Your task to perform on an android device: set the stopwatch Image 0: 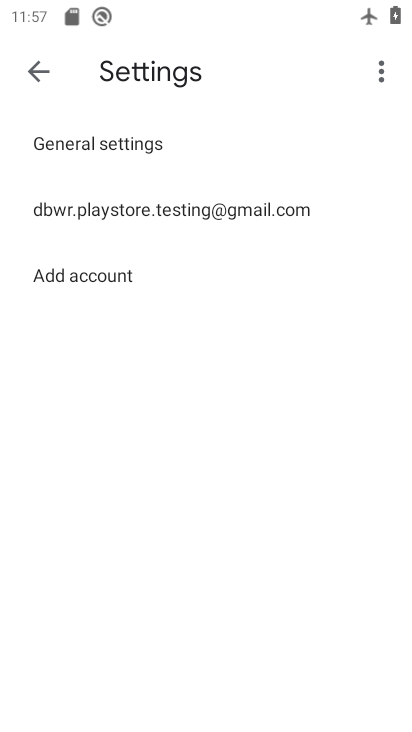
Step 0: press home button
Your task to perform on an android device: set the stopwatch Image 1: 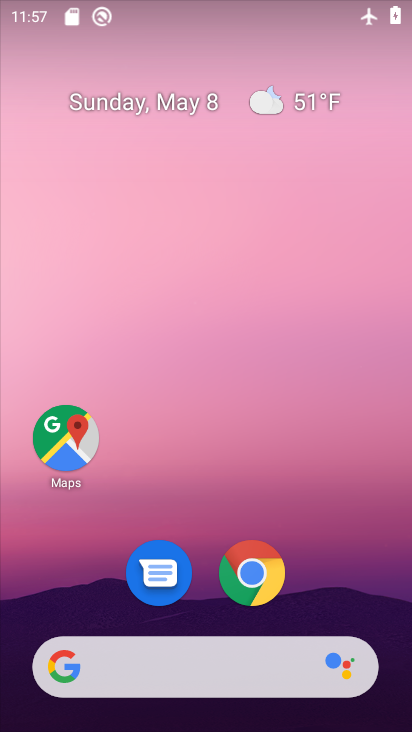
Step 1: drag from (206, 634) to (177, 252)
Your task to perform on an android device: set the stopwatch Image 2: 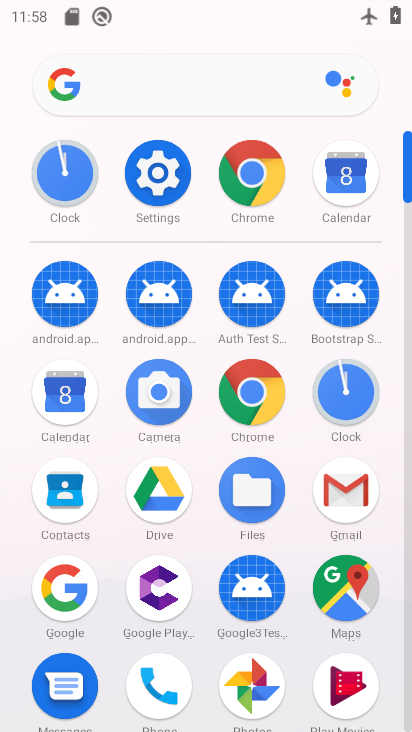
Step 2: click (355, 397)
Your task to perform on an android device: set the stopwatch Image 3: 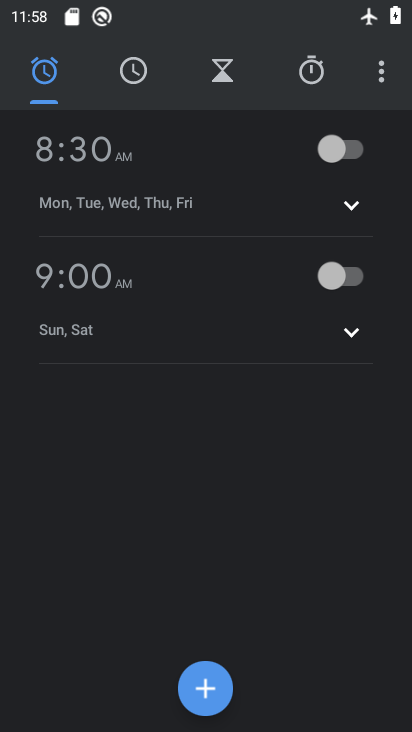
Step 3: click (312, 82)
Your task to perform on an android device: set the stopwatch Image 4: 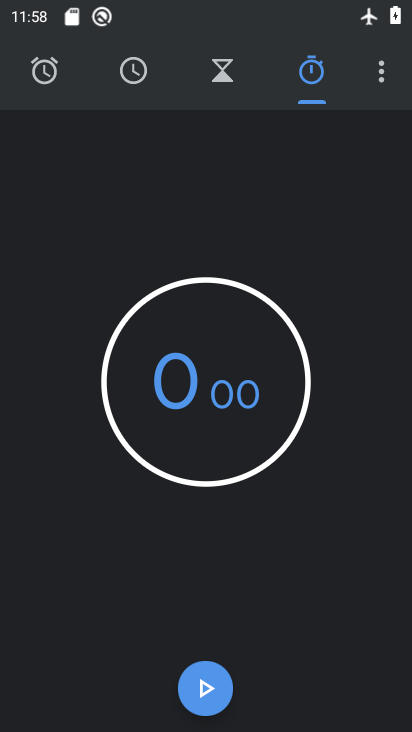
Step 4: click (187, 389)
Your task to perform on an android device: set the stopwatch Image 5: 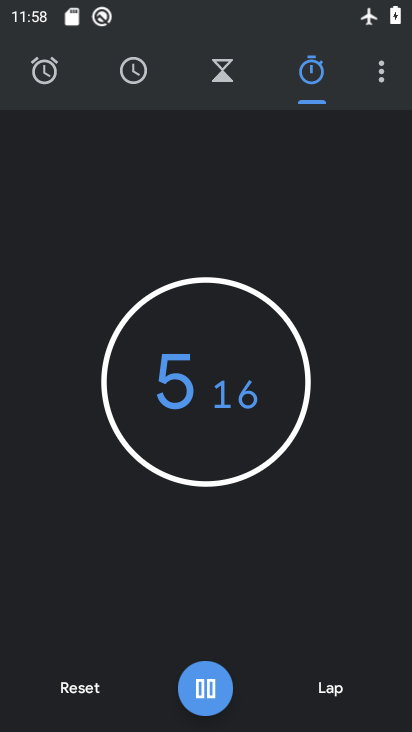
Step 5: click (196, 695)
Your task to perform on an android device: set the stopwatch Image 6: 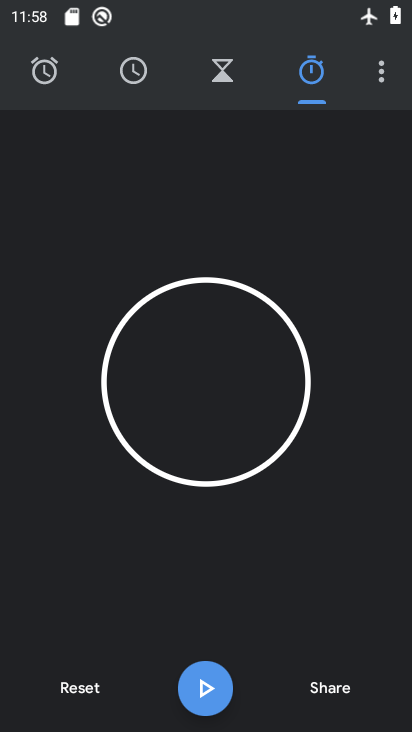
Step 6: task complete